Your task to perform on an android device: Go to display settings Image 0: 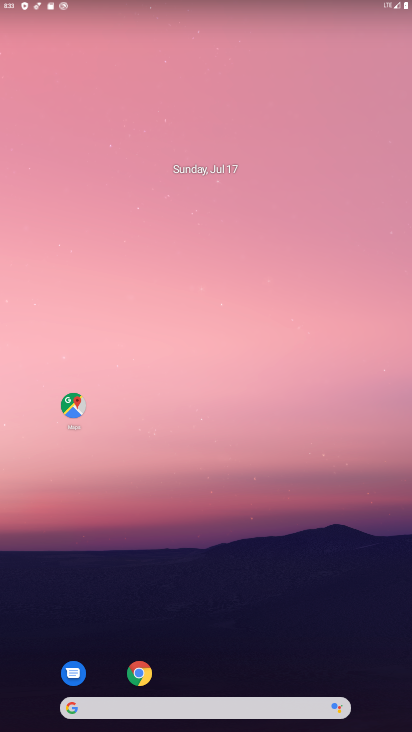
Step 0: drag from (336, 667) to (213, 0)
Your task to perform on an android device: Go to display settings Image 1: 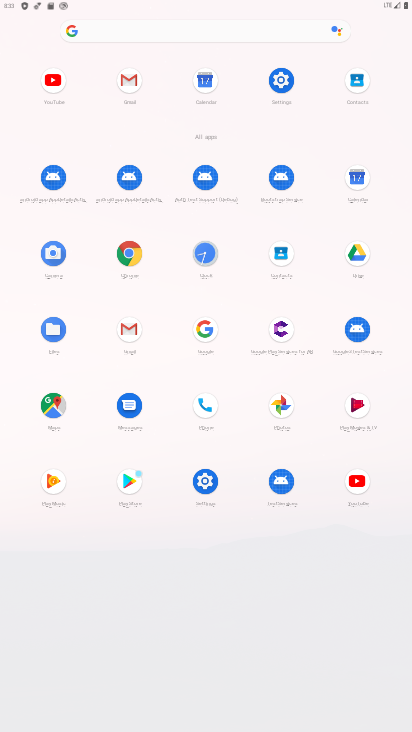
Step 1: click (279, 99)
Your task to perform on an android device: Go to display settings Image 2: 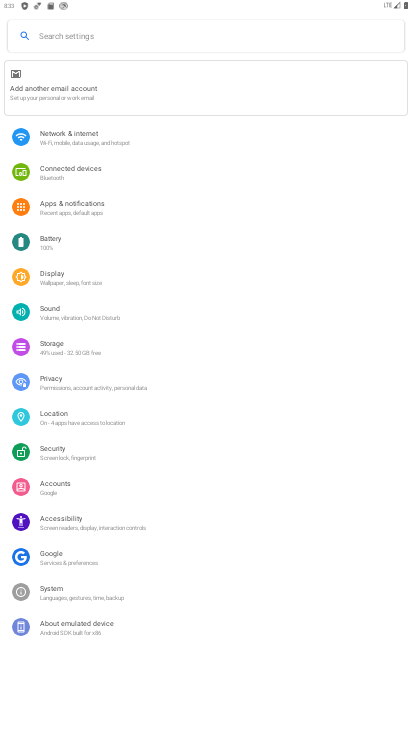
Step 2: click (72, 279)
Your task to perform on an android device: Go to display settings Image 3: 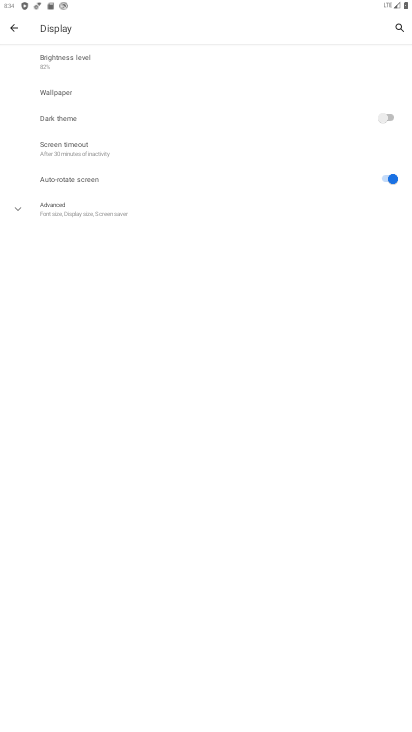
Step 3: task complete